Your task to perform on an android device: open a bookmark in the chrome app Image 0: 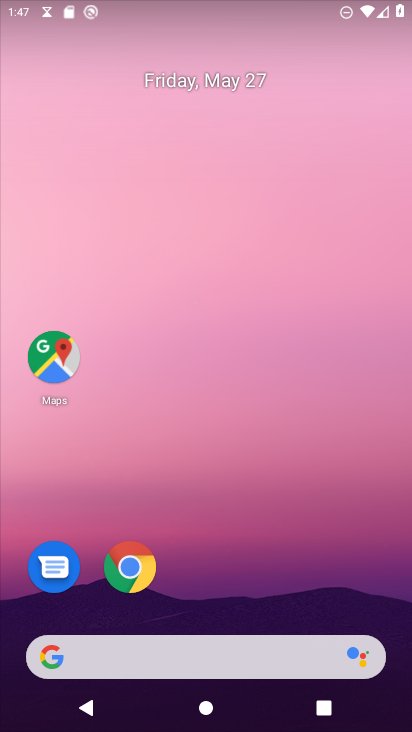
Step 0: drag from (229, 606) to (183, 112)
Your task to perform on an android device: open a bookmark in the chrome app Image 1: 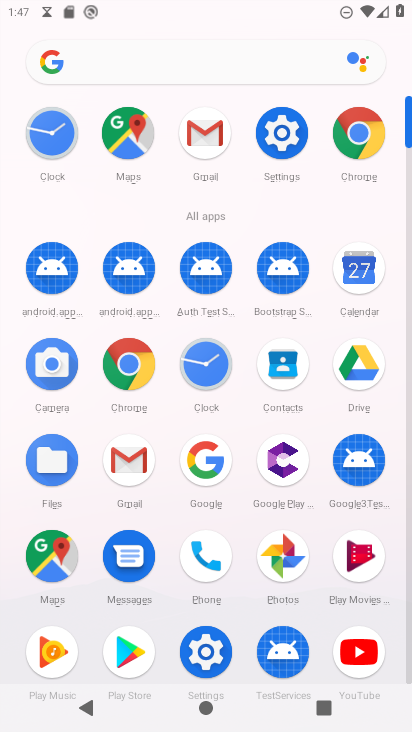
Step 1: click (369, 127)
Your task to perform on an android device: open a bookmark in the chrome app Image 2: 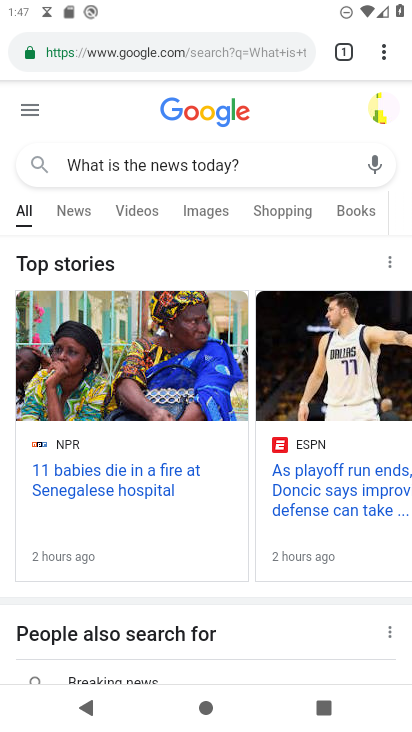
Step 2: click (377, 68)
Your task to perform on an android device: open a bookmark in the chrome app Image 3: 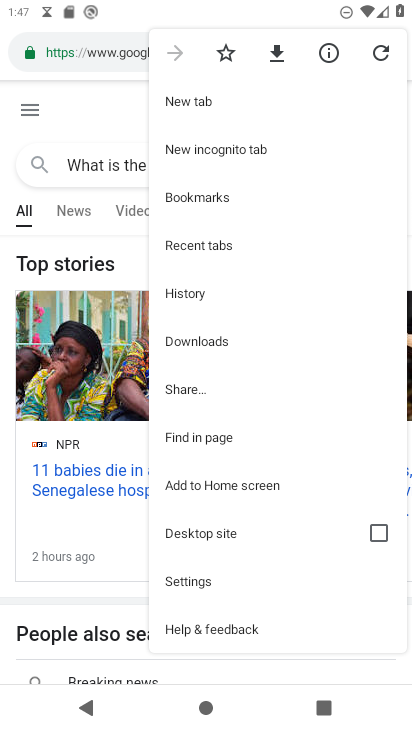
Step 3: click (207, 185)
Your task to perform on an android device: open a bookmark in the chrome app Image 4: 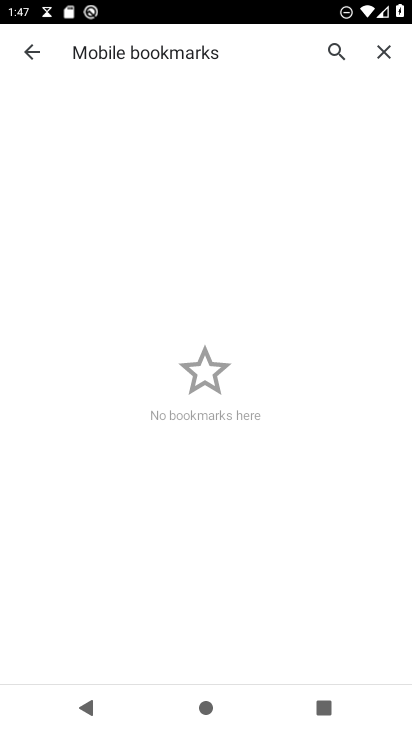
Step 4: task complete